Your task to perform on an android device: Search for the new Nike Air Jordan 33 on Nike.com Image 0: 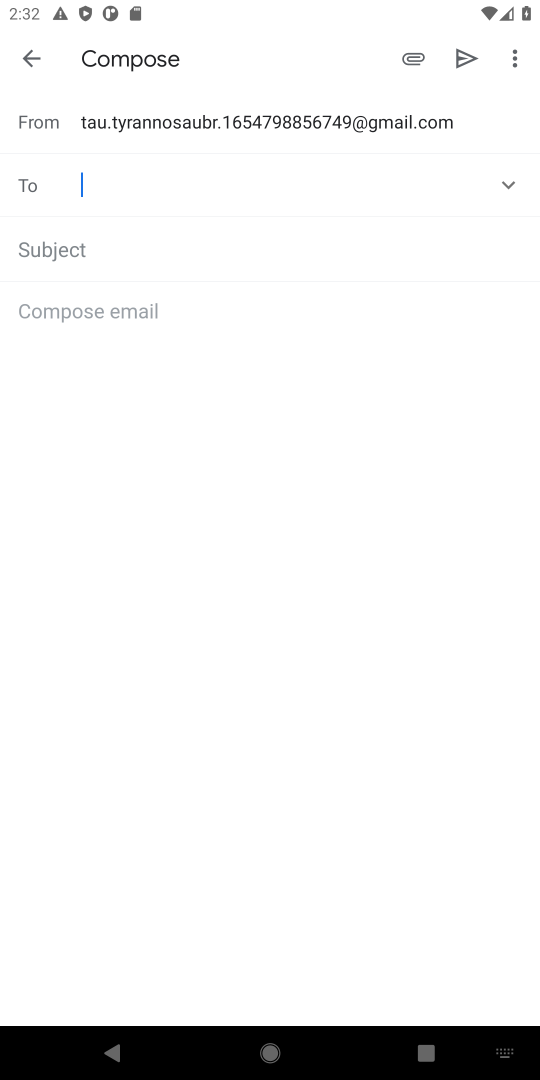
Step 0: press home button
Your task to perform on an android device: Search for the new Nike Air Jordan 33 on Nike.com Image 1: 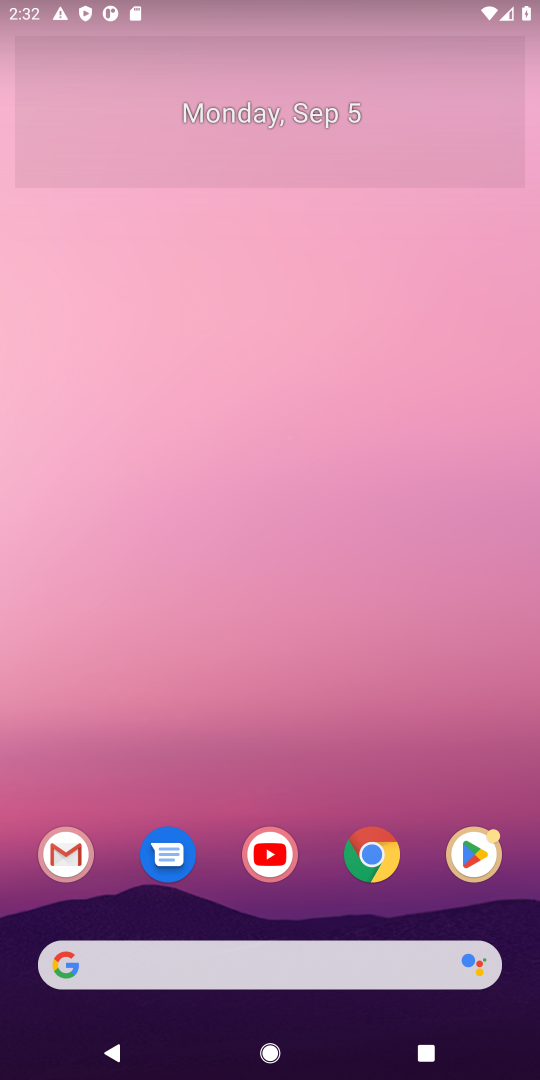
Step 1: click (366, 963)
Your task to perform on an android device: Search for the new Nike Air Jordan 33 on Nike.com Image 2: 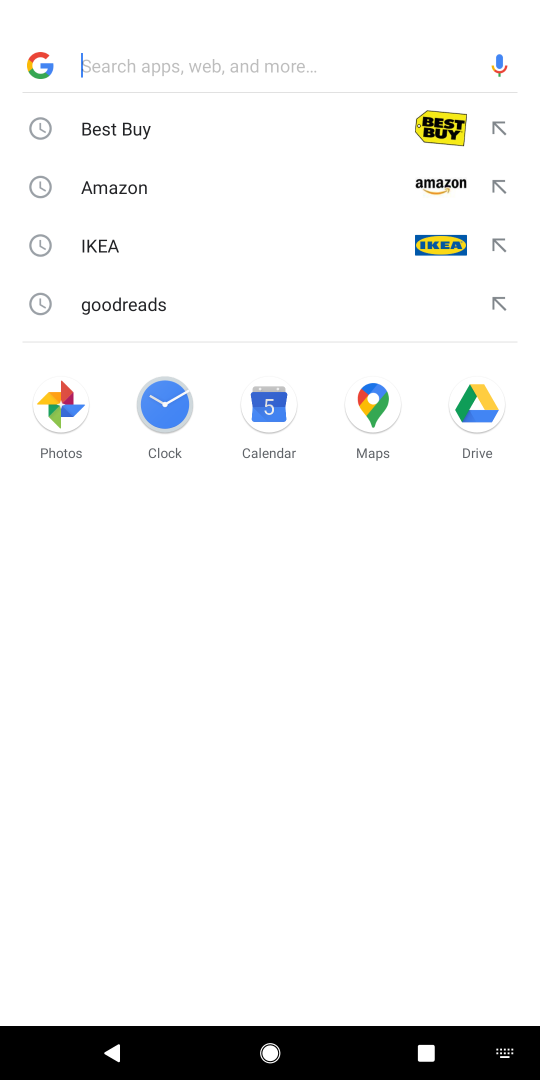
Step 2: type "nike.com"
Your task to perform on an android device: Search for the new Nike Air Jordan 33 on Nike.com Image 3: 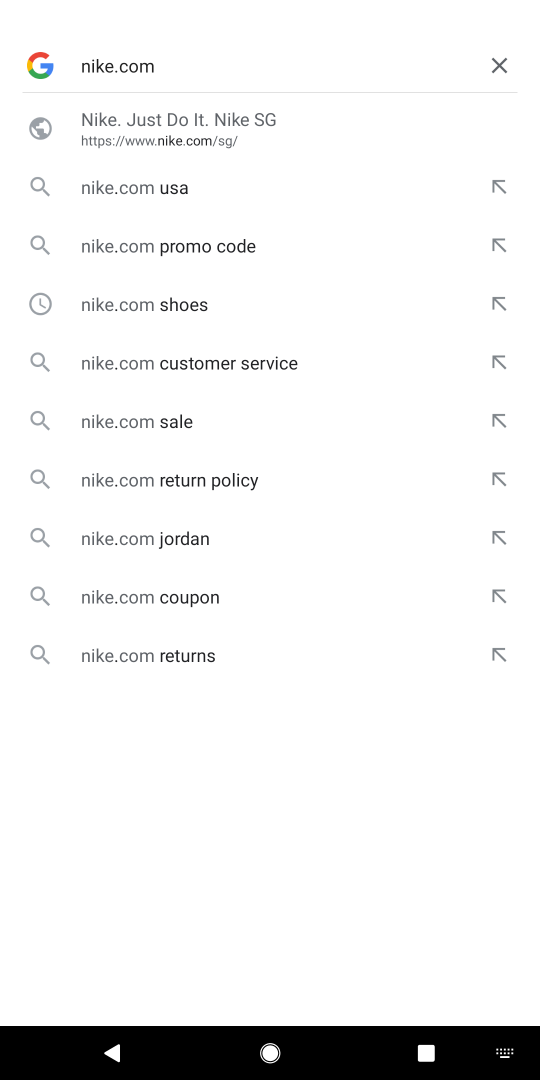
Step 3: press enter
Your task to perform on an android device: Search for the new Nike Air Jordan 33 on Nike.com Image 4: 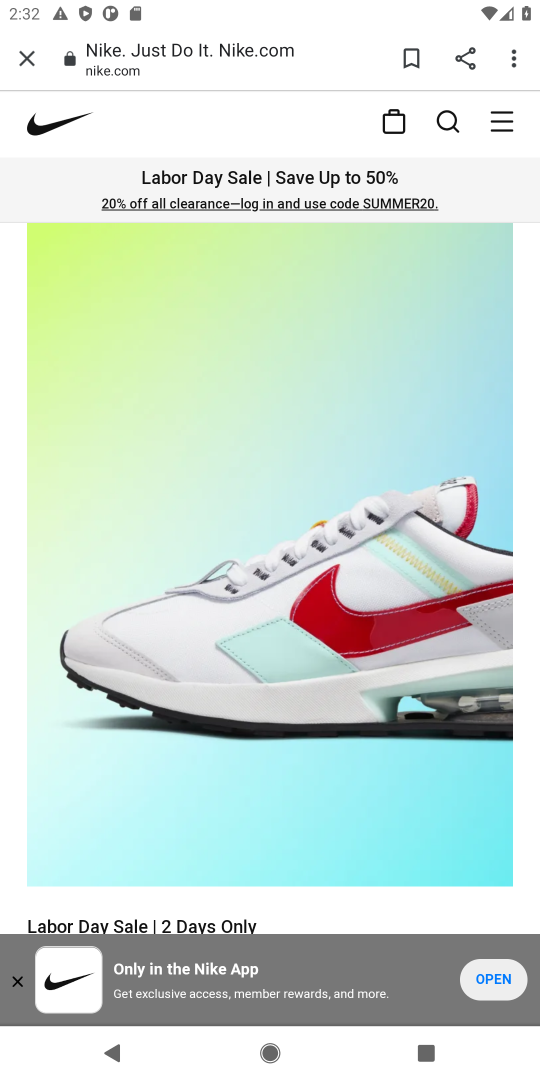
Step 4: click (445, 115)
Your task to perform on an android device: Search for the new Nike Air Jordan 33 on Nike.com Image 5: 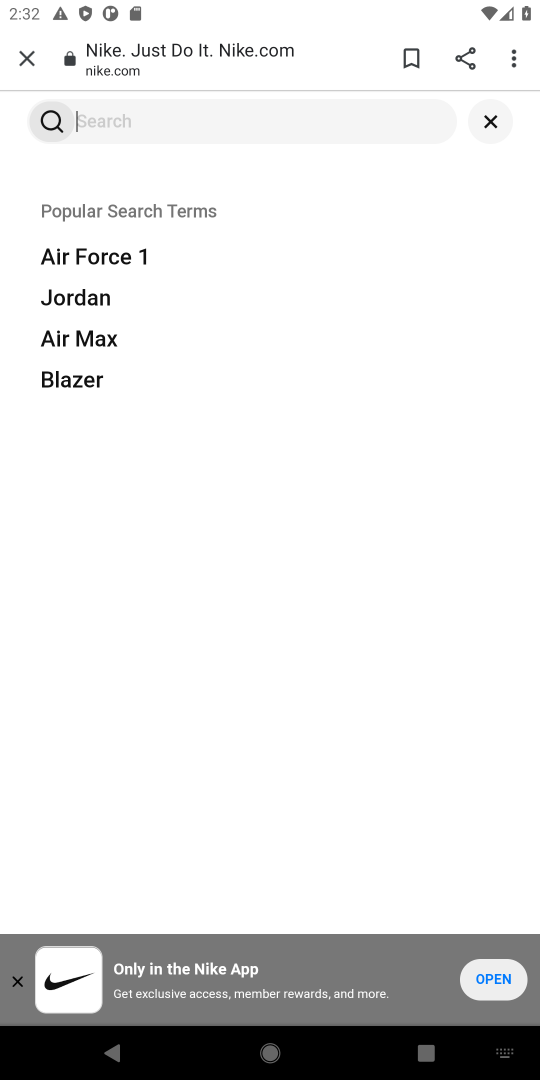
Step 5: press enter
Your task to perform on an android device: Search for the new Nike Air Jordan 33 on Nike.com Image 6: 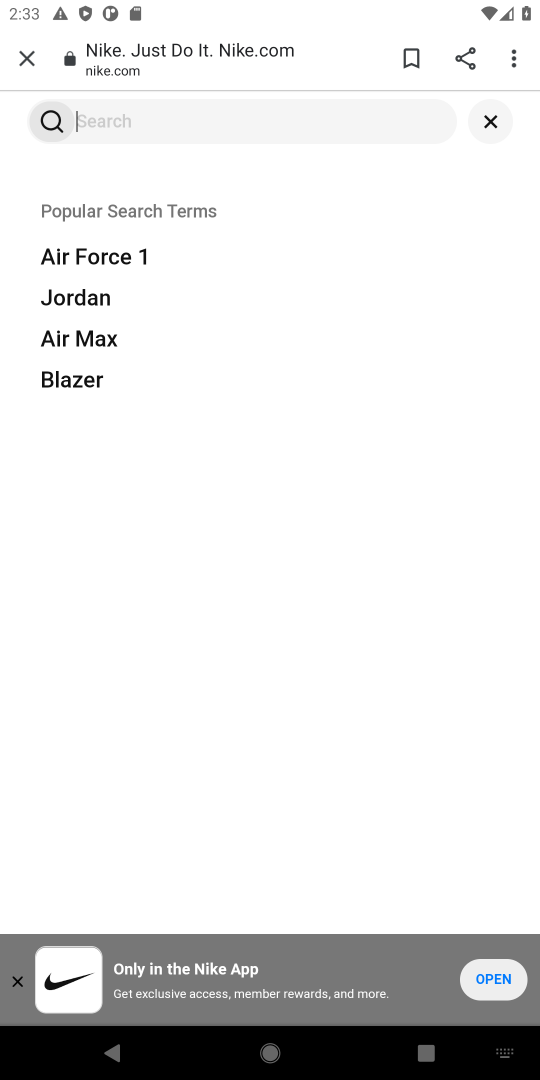
Step 6: type "new nike air jordan 33"
Your task to perform on an android device: Search for the new Nike Air Jordan 33 on Nike.com Image 7: 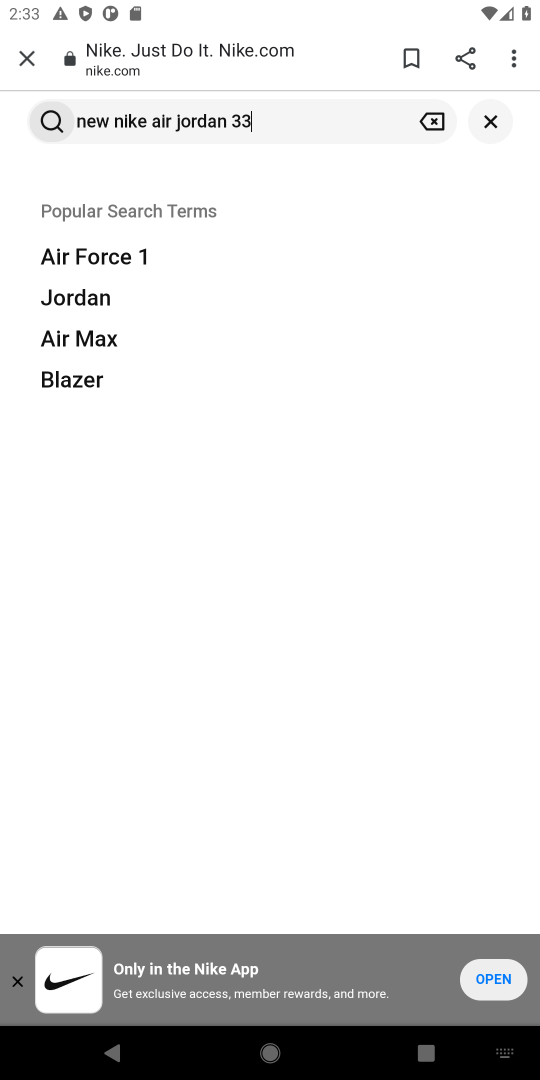
Step 7: click (39, 118)
Your task to perform on an android device: Search for the new Nike Air Jordan 33 on Nike.com Image 8: 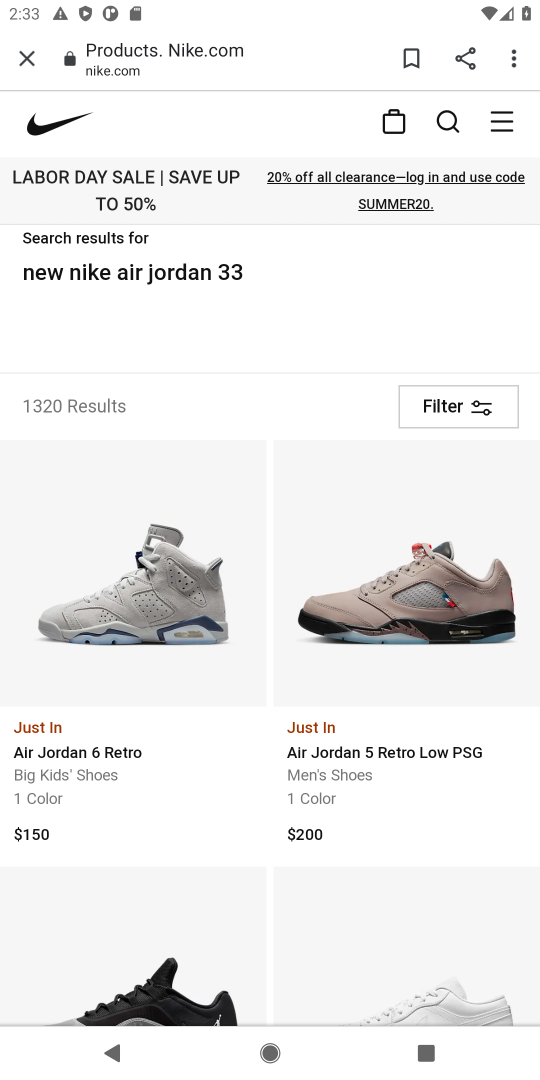
Step 8: task complete